Your task to perform on an android device: Empty the shopping cart on target. Search for "razer blade" on target, select the first entry, add it to the cart, then select checkout. Image 0: 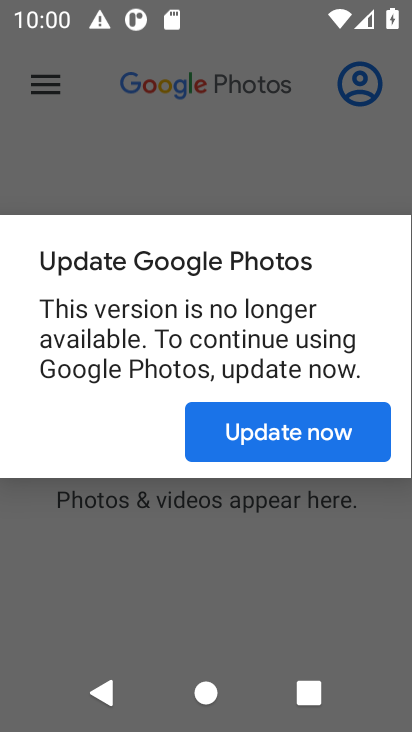
Step 0: press home button
Your task to perform on an android device: Empty the shopping cart on target. Search for "razer blade" on target, select the first entry, add it to the cart, then select checkout. Image 1: 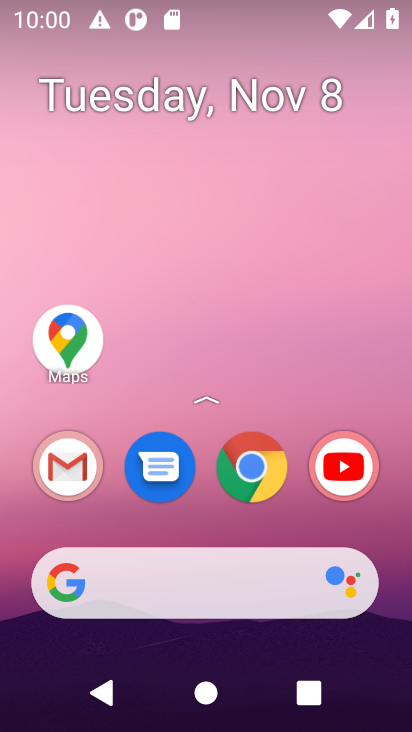
Step 1: click (231, 602)
Your task to perform on an android device: Empty the shopping cart on target. Search for "razer blade" on target, select the first entry, add it to the cart, then select checkout. Image 2: 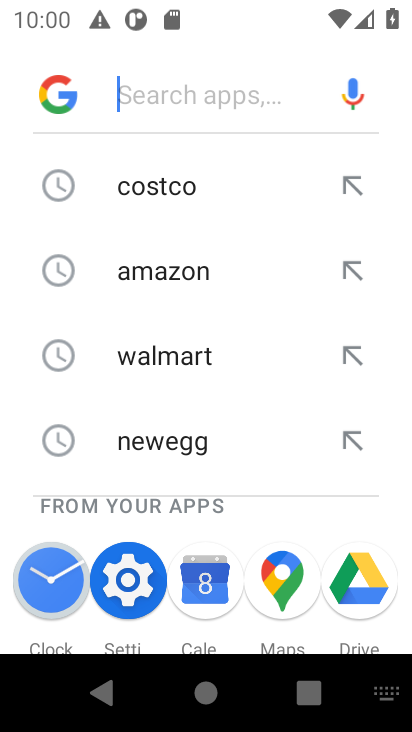
Step 2: type "target"
Your task to perform on an android device: Empty the shopping cart on target. Search for "razer blade" on target, select the first entry, add it to the cart, then select checkout. Image 3: 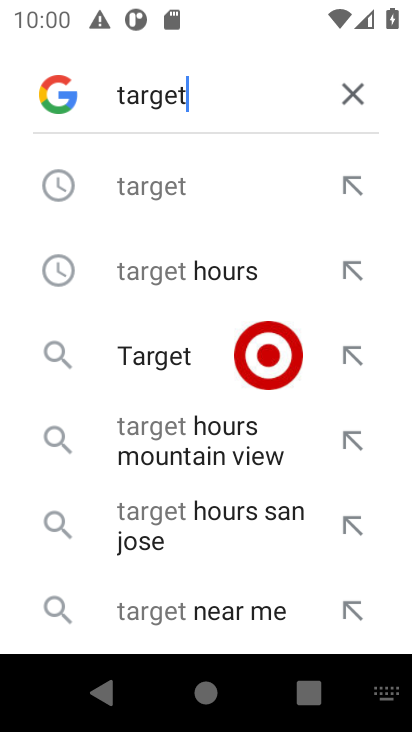
Step 3: click (209, 362)
Your task to perform on an android device: Empty the shopping cart on target. Search for "razer blade" on target, select the first entry, add it to the cart, then select checkout. Image 4: 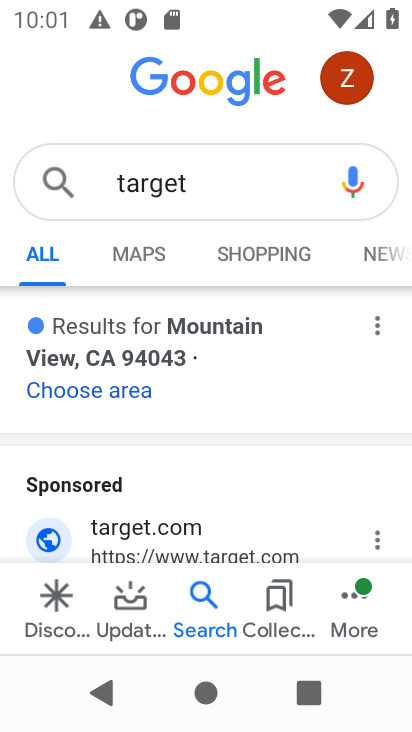
Step 4: task complete